Your task to perform on an android device: turn off notifications settings in the gmail app Image 0: 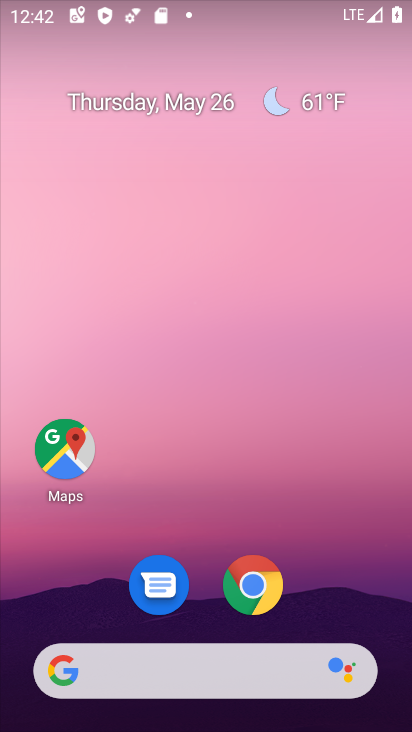
Step 0: drag from (220, 473) to (232, 18)
Your task to perform on an android device: turn off notifications settings in the gmail app Image 1: 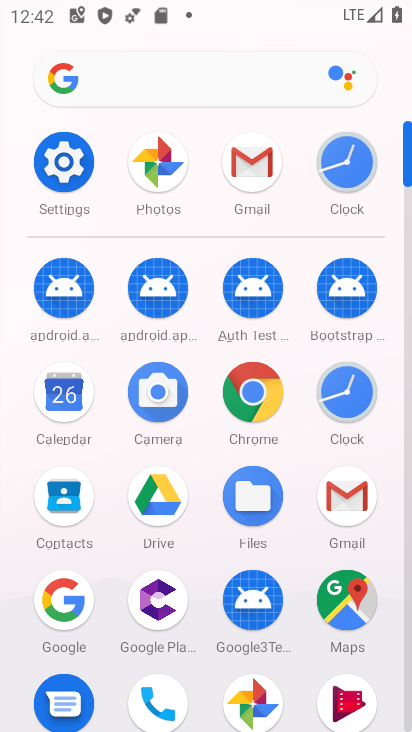
Step 1: click (244, 156)
Your task to perform on an android device: turn off notifications settings in the gmail app Image 2: 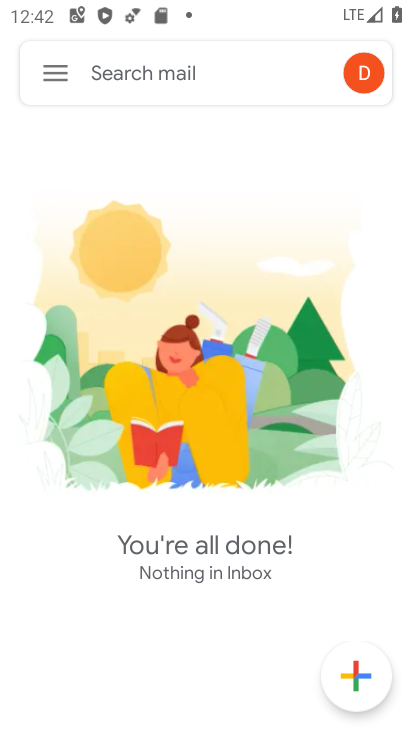
Step 2: click (59, 73)
Your task to perform on an android device: turn off notifications settings in the gmail app Image 3: 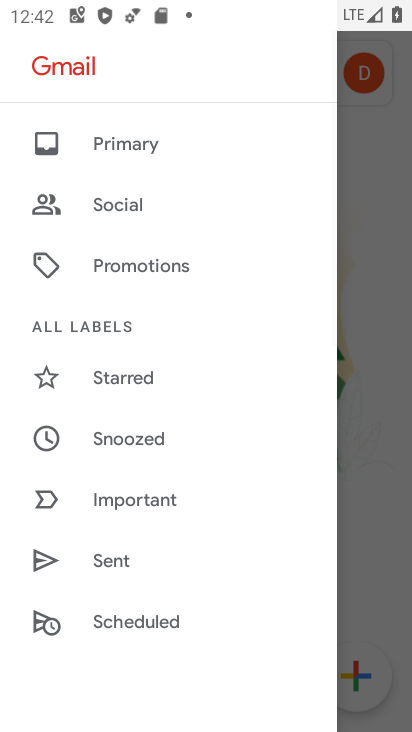
Step 3: drag from (169, 484) to (185, 108)
Your task to perform on an android device: turn off notifications settings in the gmail app Image 4: 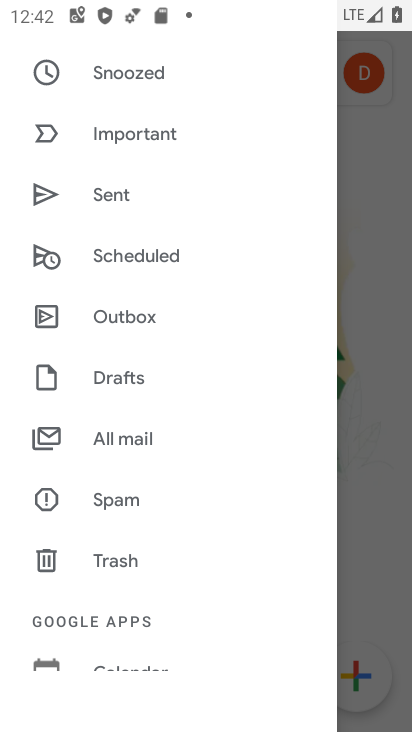
Step 4: drag from (159, 510) to (179, 193)
Your task to perform on an android device: turn off notifications settings in the gmail app Image 5: 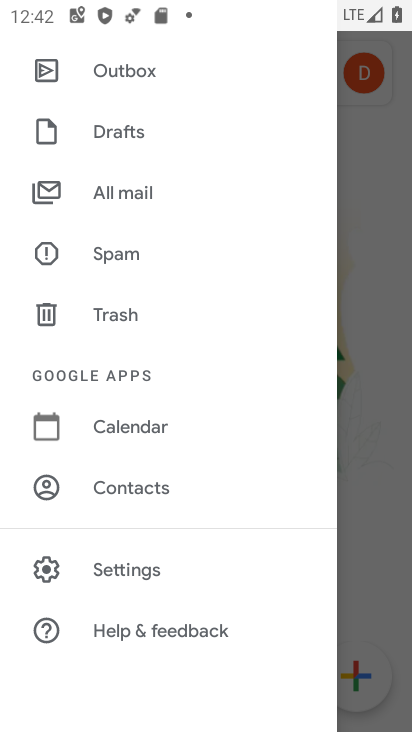
Step 5: click (142, 561)
Your task to perform on an android device: turn off notifications settings in the gmail app Image 6: 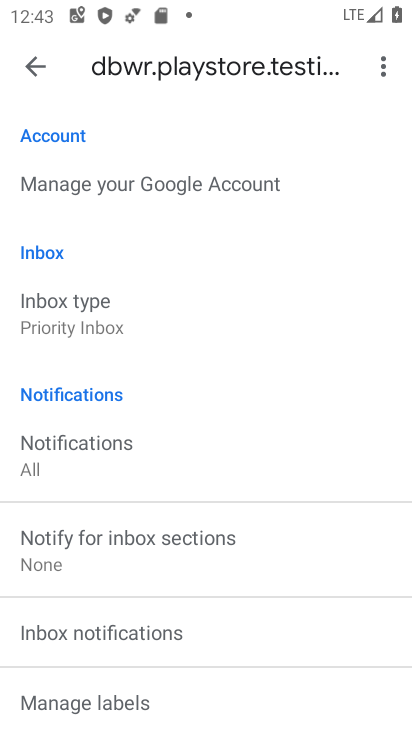
Step 6: drag from (274, 596) to (292, 353)
Your task to perform on an android device: turn off notifications settings in the gmail app Image 7: 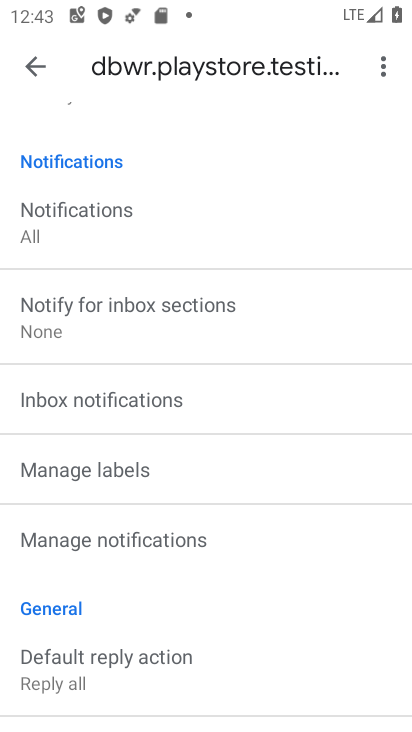
Step 7: click (260, 530)
Your task to perform on an android device: turn off notifications settings in the gmail app Image 8: 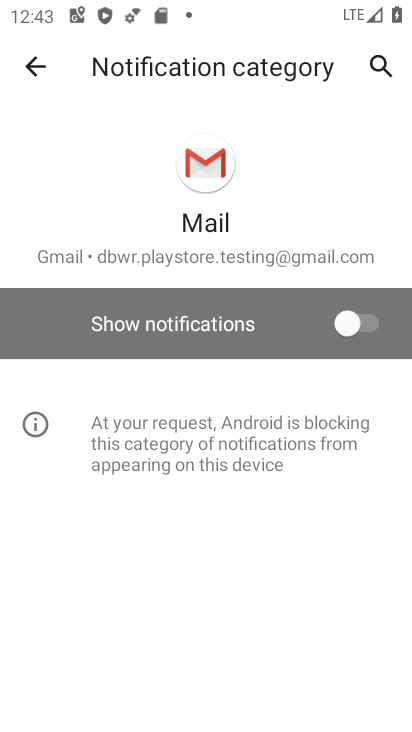
Step 8: task complete